Your task to perform on an android device: Open my contact list Image 0: 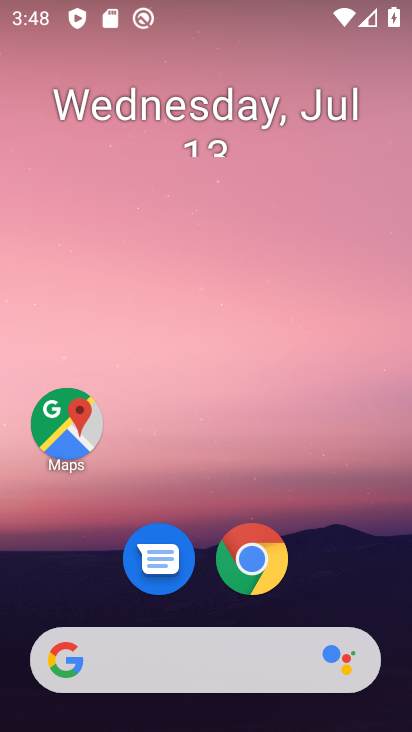
Step 0: drag from (280, 654) to (242, 103)
Your task to perform on an android device: Open my contact list Image 1: 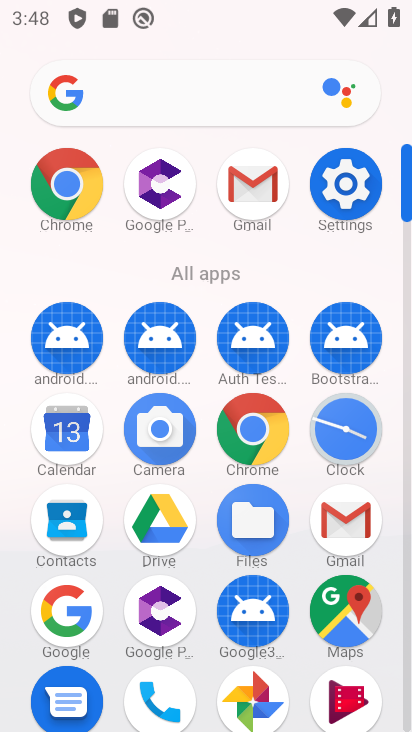
Step 1: drag from (184, 584) to (165, 221)
Your task to perform on an android device: Open my contact list Image 2: 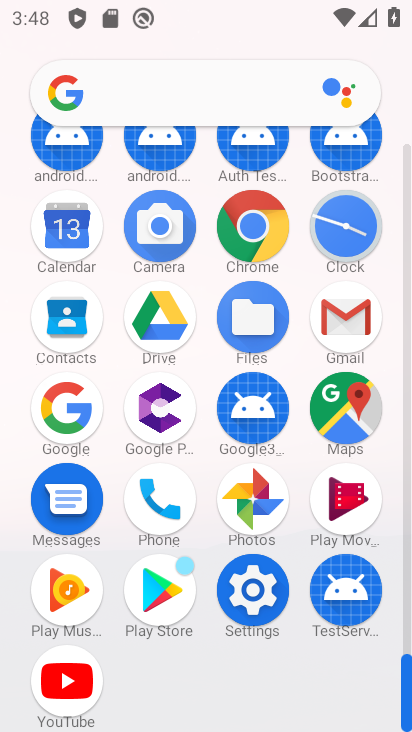
Step 2: click (68, 322)
Your task to perform on an android device: Open my contact list Image 3: 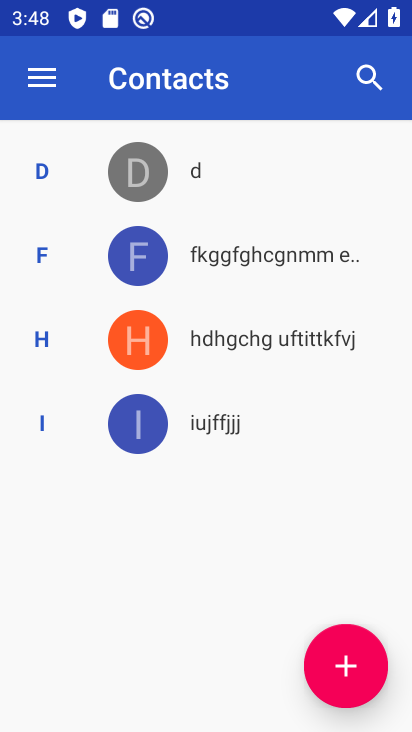
Step 3: task complete